Your task to perform on an android device: toggle airplane mode Image 0: 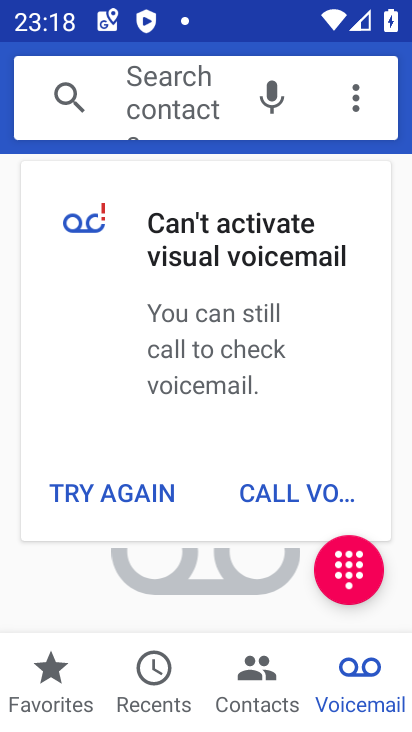
Step 0: press home button
Your task to perform on an android device: toggle airplane mode Image 1: 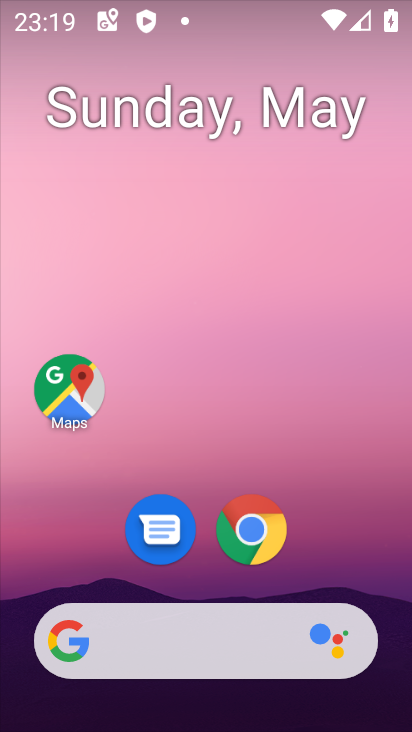
Step 1: drag from (328, 559) to (270, 93)
Your task to perform on an android device: toggle airplane mode Image 2: 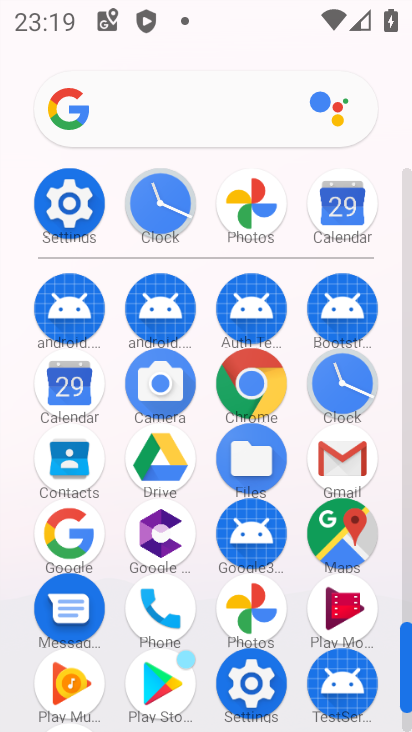
Step 2: click (77, 205)
Your task to perform on an android device: toggle airplane mode Image 3: 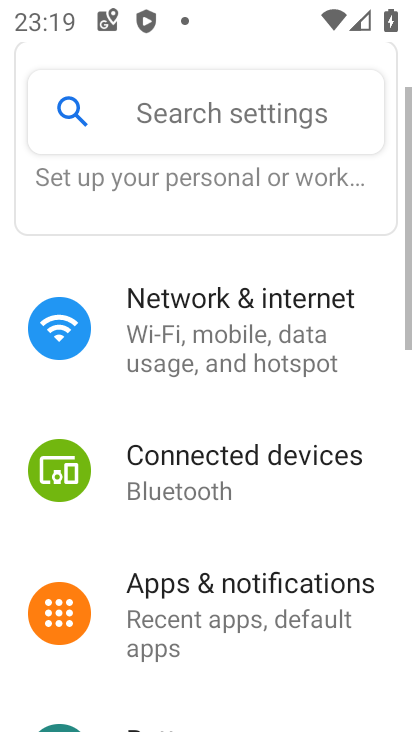
Step 3: task complete